Your task to perform on an android device: turn off picture-in-picture Image 0: 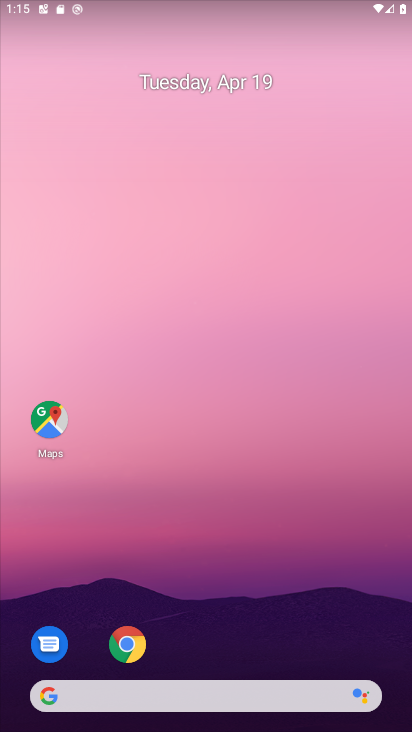
Step 0: click (129, 647)
Your task to perform on an android device: turn off picture-in-picture Image 1: 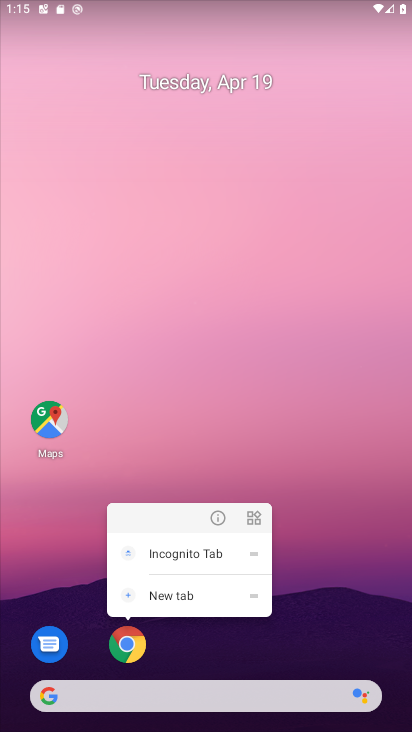
Step 1: click (214, 517)
Your task to perform on an android device: turn off picture-in-picture Image 2: 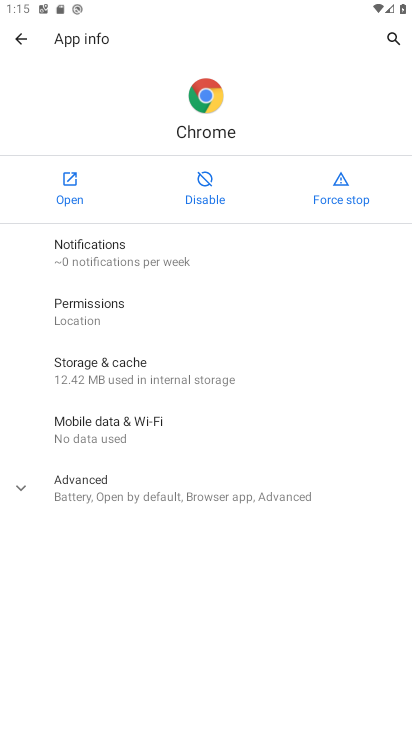
Step 2: click (103, 500)
Your task to perform on an android device: turn off picture-in-picture Image 3: 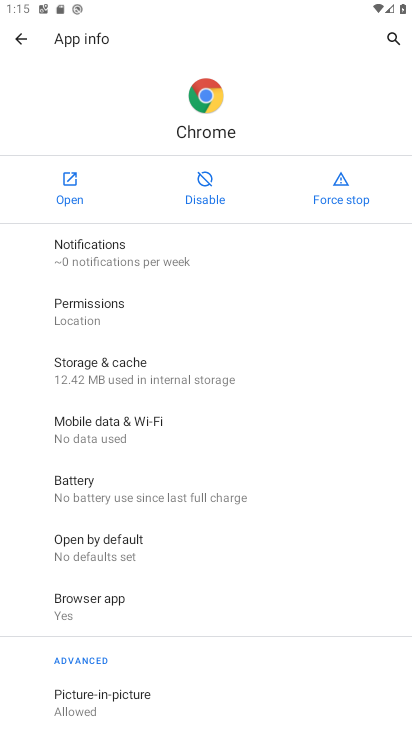
Step 3: drag from (128, 570) to (213, 247)
Your task to perform on an android device: turn off picture-in-picture Image 4: 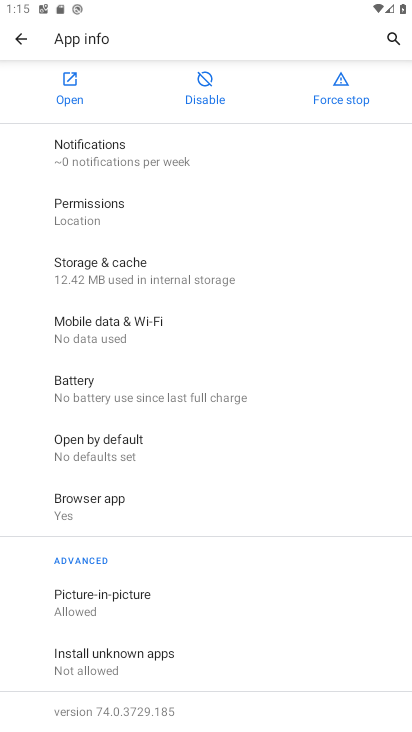
Step 4: click (81, 606)
Your task to perform on an android device: turn off picture-in-picture Image 5: 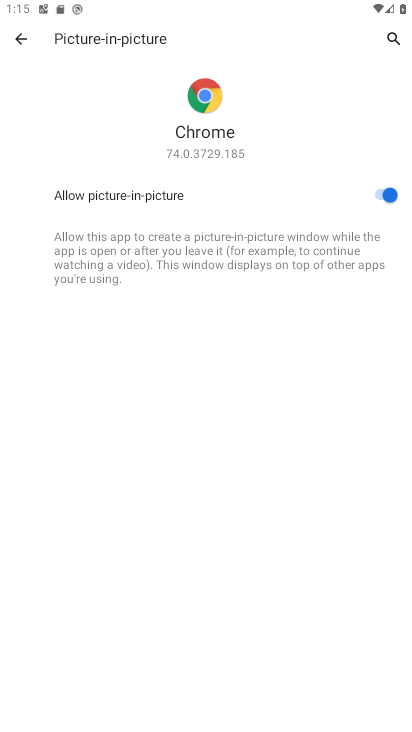
Step 5: click (374, 191)
Your task to perform on an android device: turn off picture-in-picture Image 6: 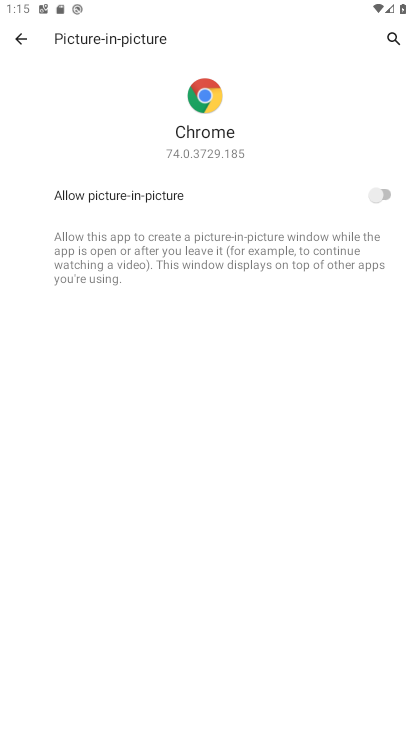
Step 6: task complete